Your task to perform on an android device: What's the weather? Image 0: 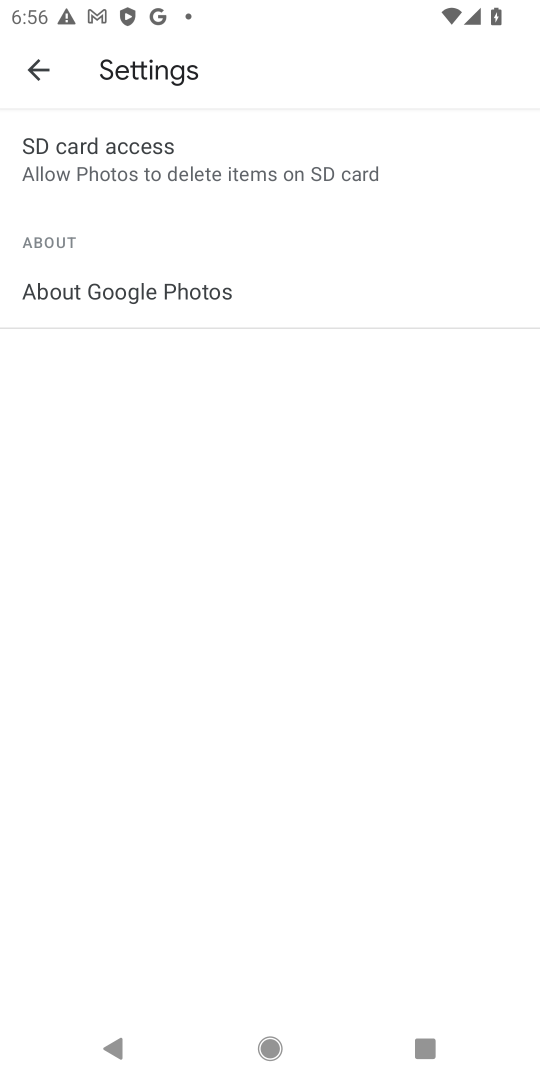
Step 0: press home button
Your task to perform on an android device: What's the weather? Image 1: 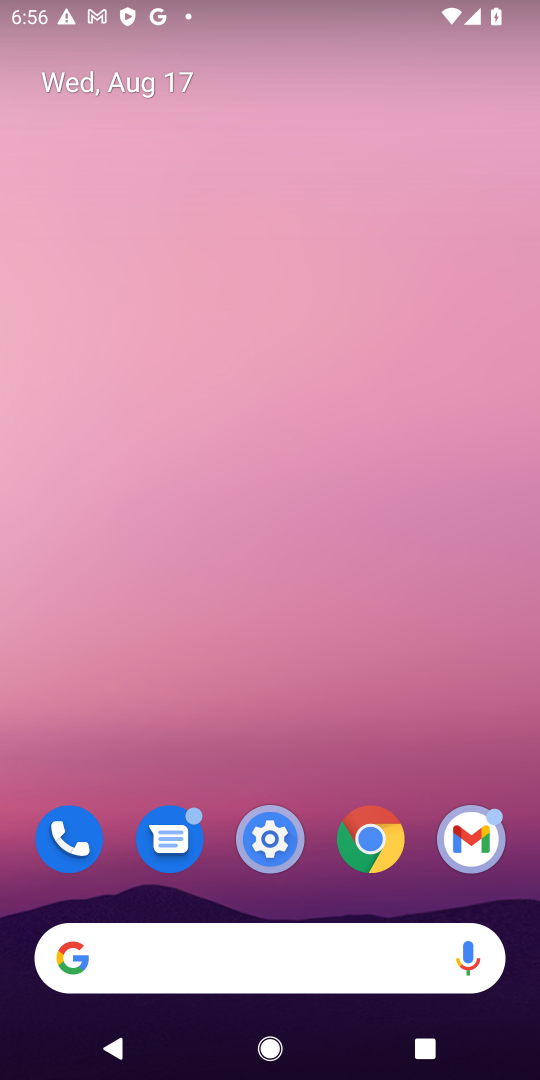
Step 1: click (284, 947)
Your task to perform on an android device: What's the weather? Image 2: 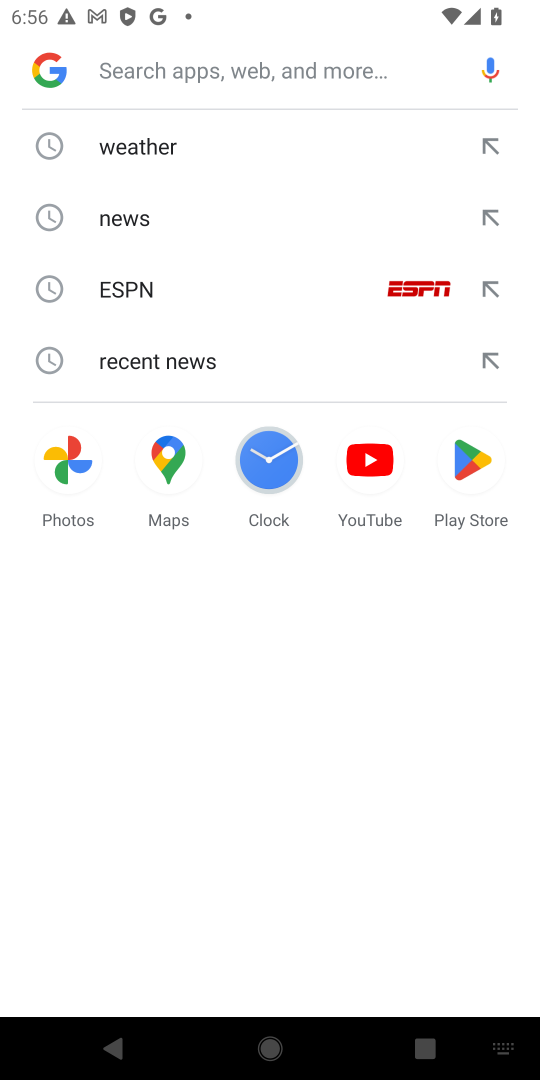
Step 2: click (148, 130)
Your task to perform on an android device: What's the weather? Image 3: 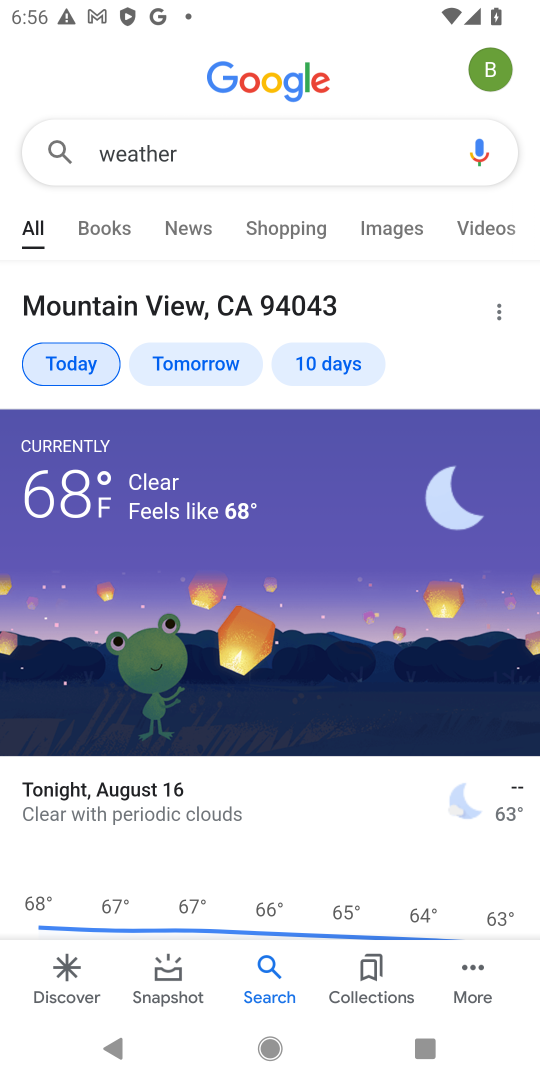
Step 3: task complete